Your task to perform on an android device: turn on notifications settings in the gmail app Image 0: 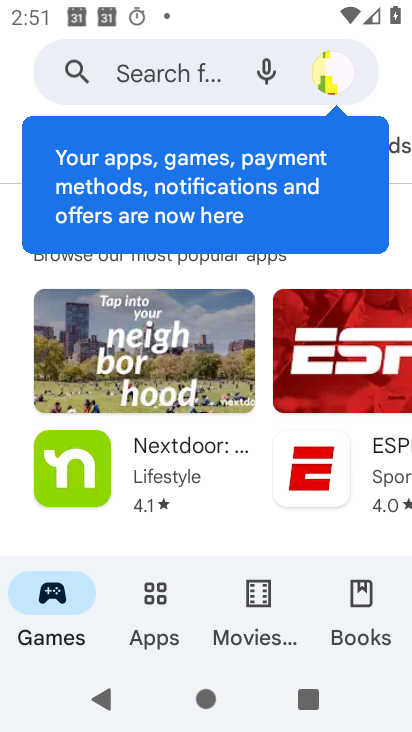
Step 0: press home button
Your task to perform on an android device: turn on notifications settings in the gmail app Image 1: 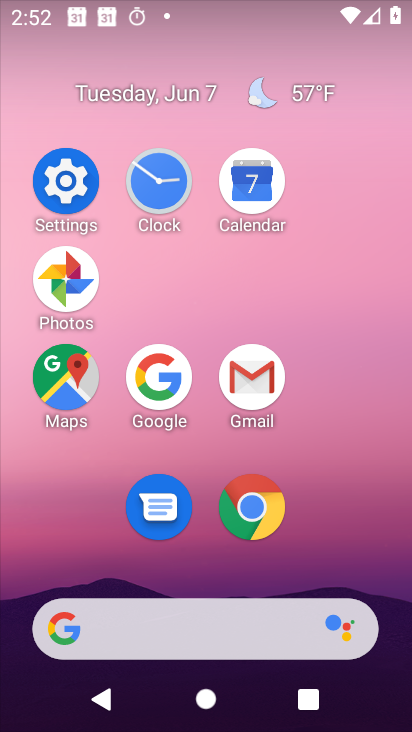
Step 1: click (265, 373)
Your task to perform on an android device: turn on notifications settings in the gmail app Image 2: 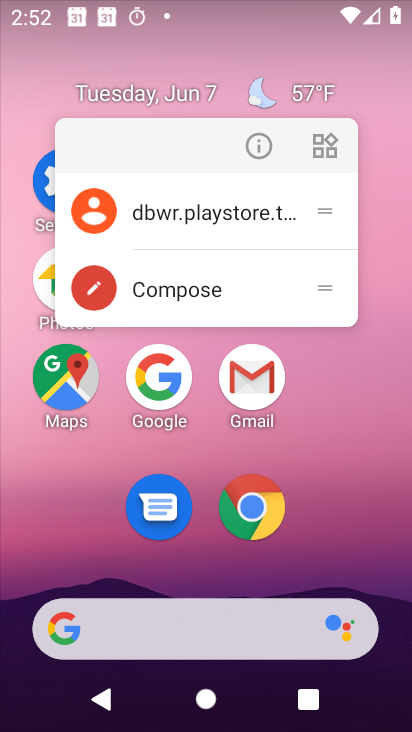
Step 2: click (265, 377)
Your task to perform on an android device: turn on notifications settings in the gmail app Image 3: 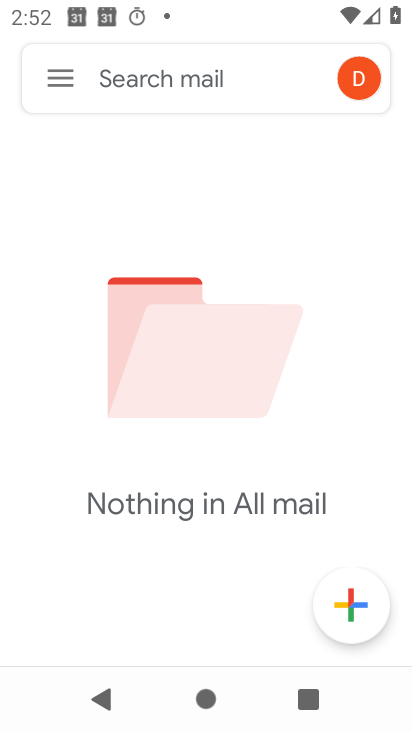
Step 3: click (72, 72)
Your task to perform on an android device: turn on notifications settings in the gmail app Image 4: 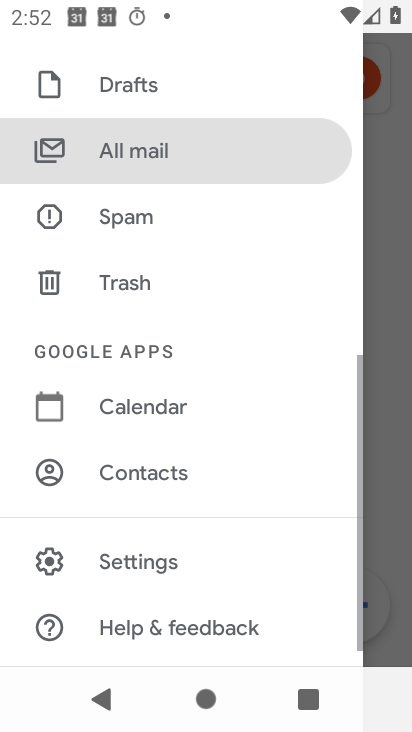
Step 4: click (194, 553)
Your task to perform on an android device: turn on notifications settings in the gmail app Image 5: 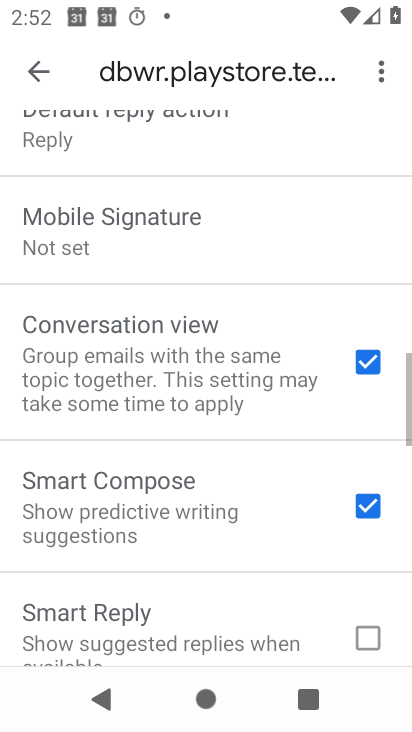
Step 5: drag from (188, 479) to (220, 228)
Your task to perform on an android device: turn on notifications settings in the gmail app Image 6: 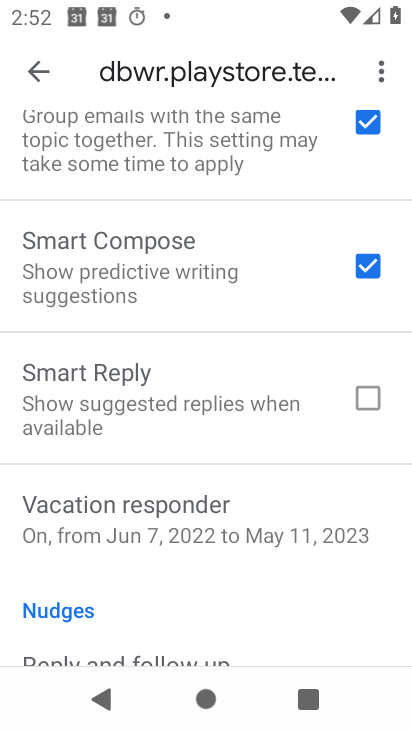
Step 6: drag from (247, 271) to (258, 654)
Your task to perform on an android device: turn on notifications settings in the gmail app Image 7: 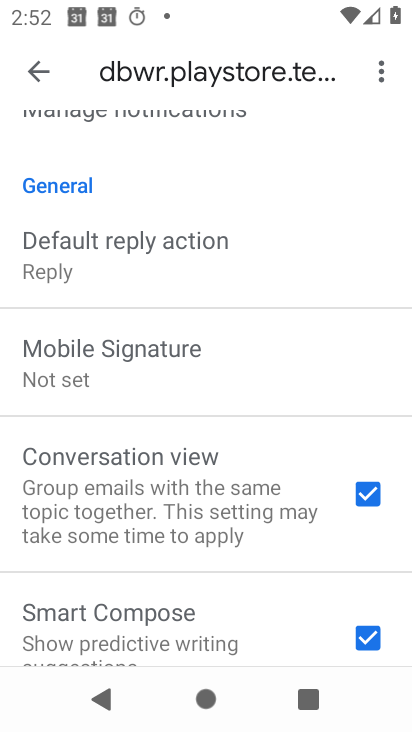
Step 7: drag from (225, 237) to (212, 583)
Your task to perform on an android device: turn on notifications settings in the gmail app Image 8: 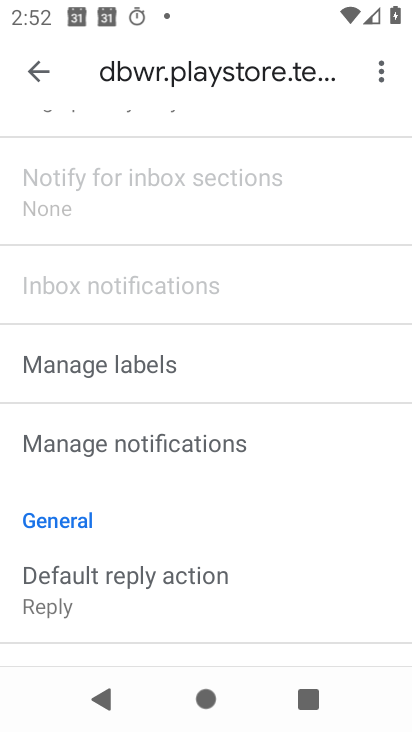
Step 8: drag from (237, 299) to (213, 522)
Your task to perform on an android device: turn on notifications settings in the gmail app Image 9: 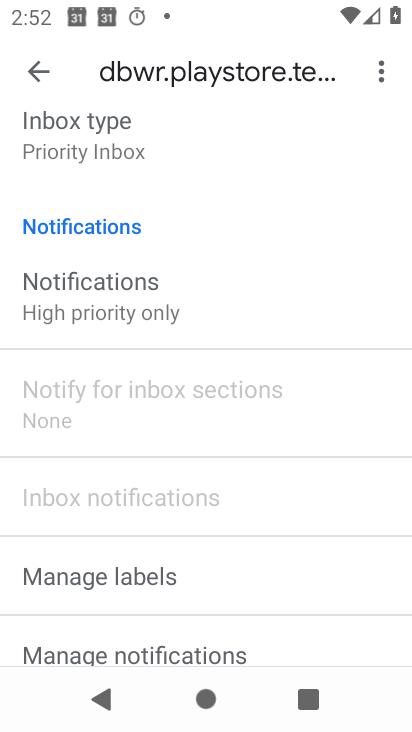
Step 9: click (216, 639)
Your task to perform on an android device: turn on notifications settings in the gmail app Image 10: 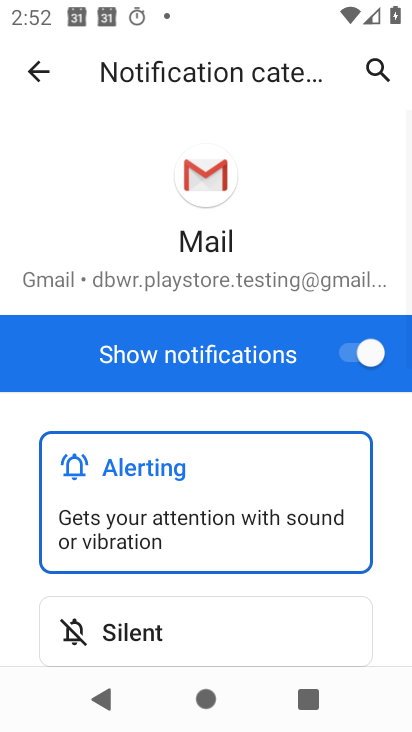
Step 10: task complete